Your task to perform on an android device: Search for sushi restaurants on Maps Image 0: 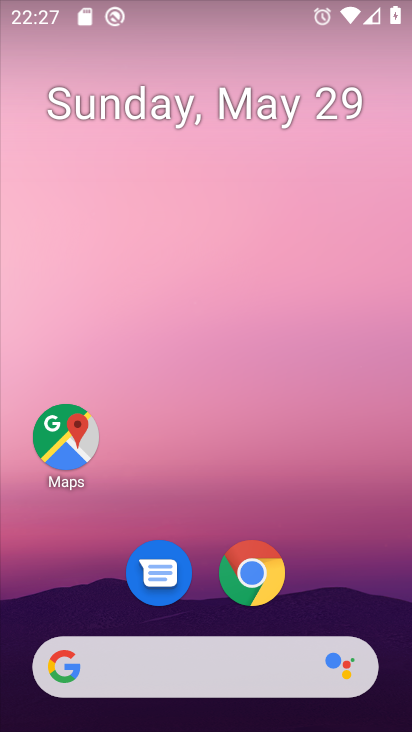
Step 0: click (63, 428)
Your task to perform on an android device: Search for sushi restaurants on Maps Image 1: 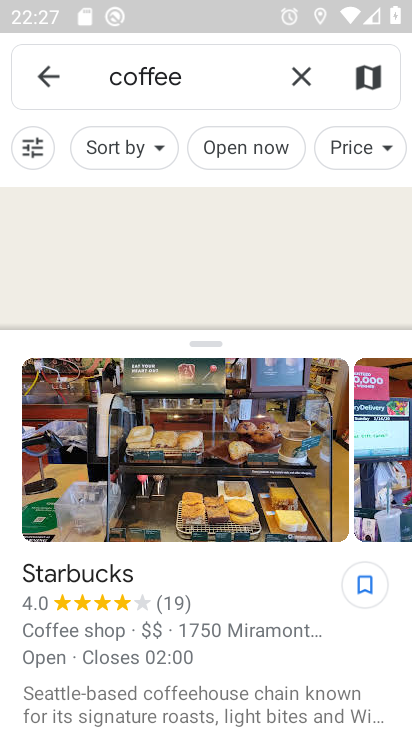
Step 1: click (300, 64)
Your task to perform on an android device: Search for sushi restaurants on Maps Image 2: 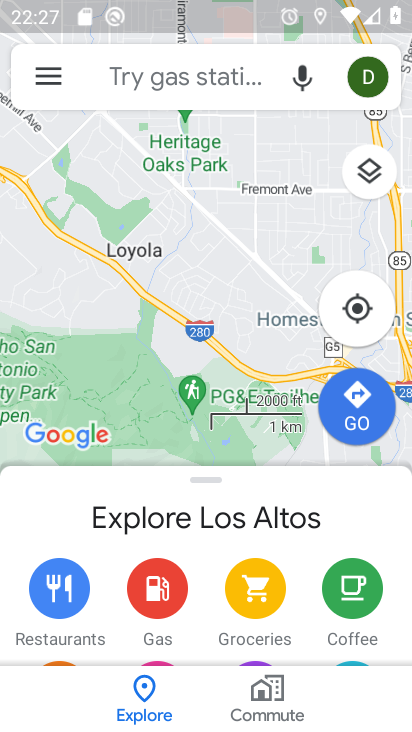
Step 2: click (153, 69)
Your task to perform on an android device: Search for sushi restaurants on Maps Image 3: 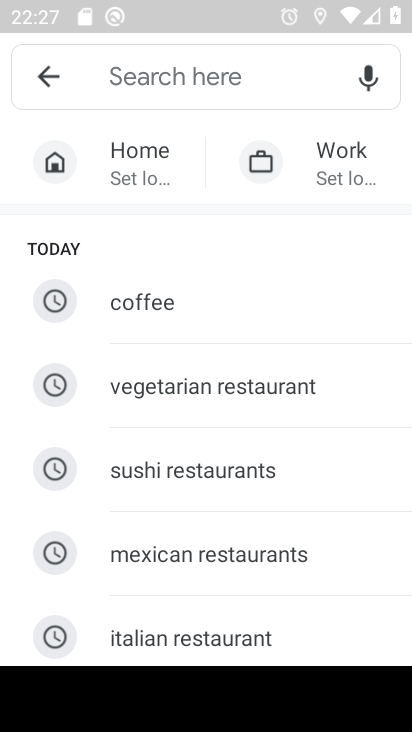
Step 3: click (236, 461)
Your task to perform on an android device: Search for sushi restaurants on Maps Image 4: 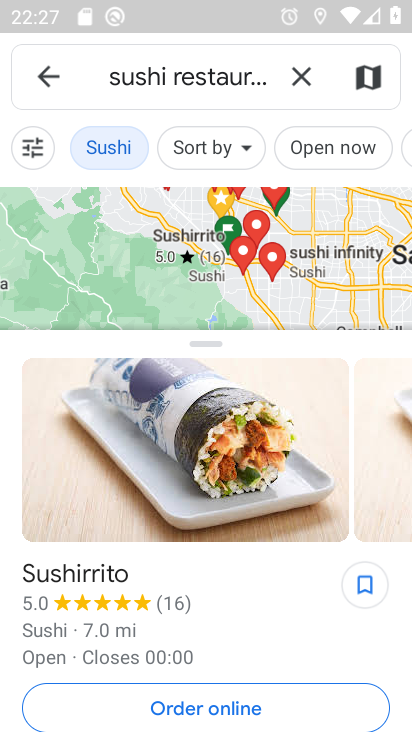
Step 4: task complete